Your task to perform on an android device: turn notification dots off Image 0: 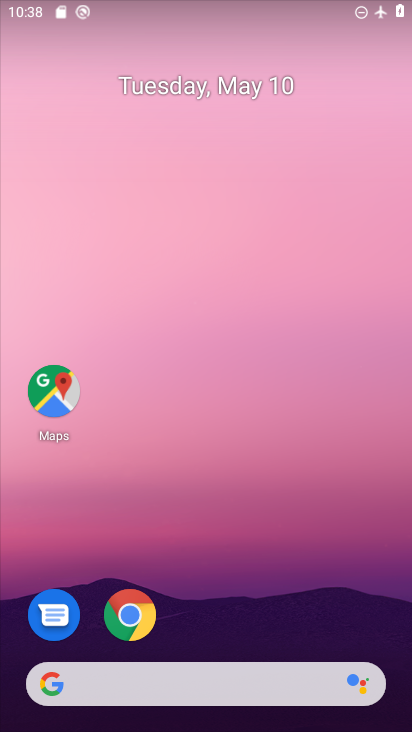
Step 0: drag from (219, 632) to (336, 0)
Your task to perform on an android device: turn notification dots off Image 1: 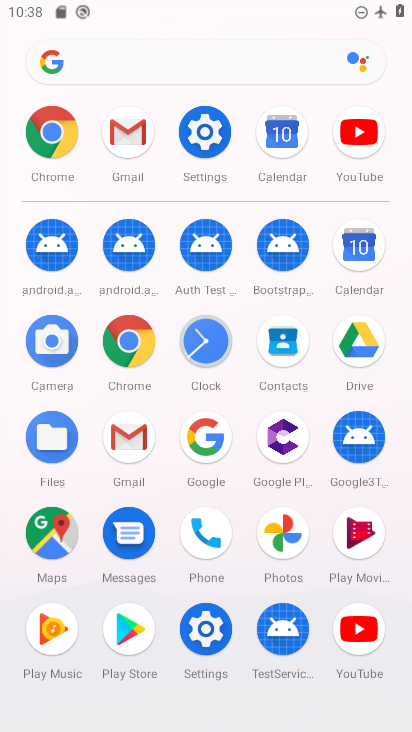
Step 1: click (194, 636)
Your task to perform on an android device: turn notification dots off Image 2: 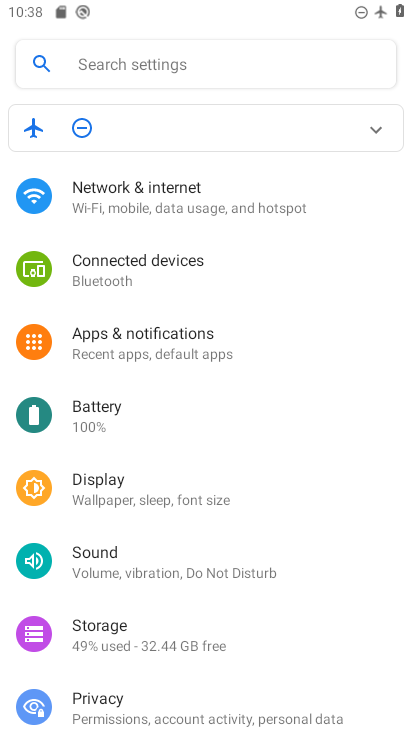
Step 2: click (211, 345)
Your task to perform on an android device: turn notification dots off Image 3: 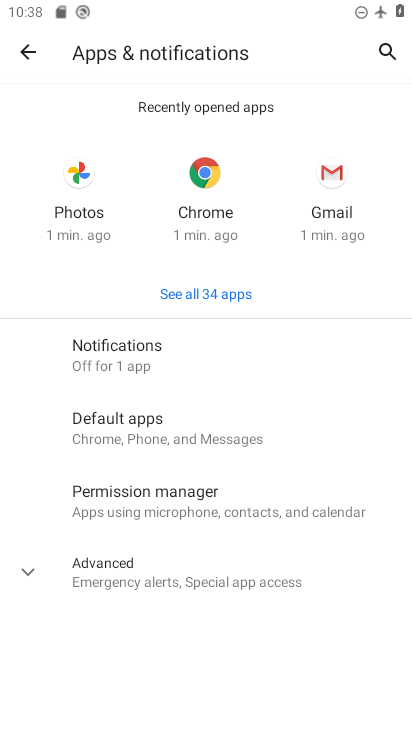
Step 3: click (153, 354)
Your task to perform on an android device: turn notification dots off Image 4: 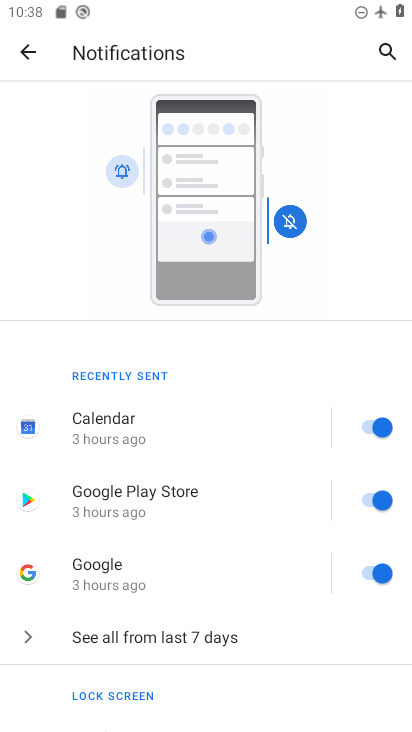
Step 4: drag from (207, 605) to (289, 289)
Your task to perform on an android device: turn notification dots off Image 5: 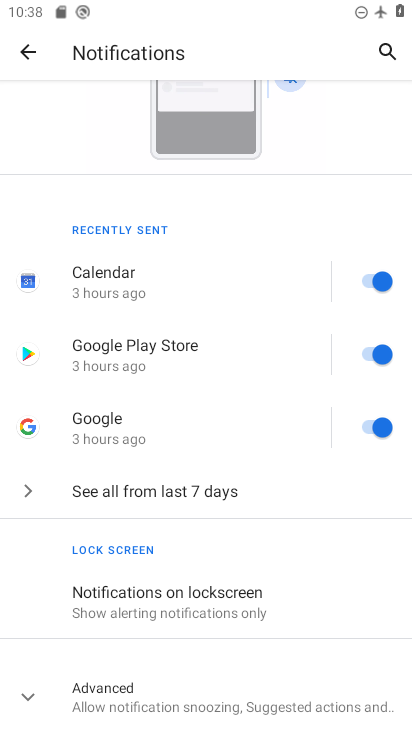
Step 5: click (187, 682)
Your task to perform on an android device: turn notification dots off Image 6: 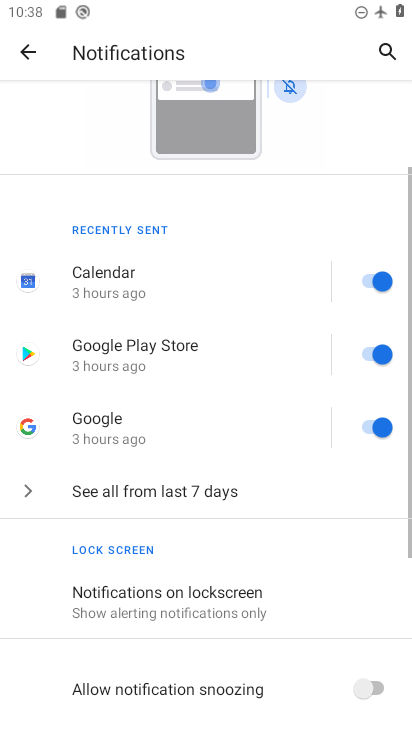
Step 6: task complete